Your task to perform on an android device: Find coffee shops on Maps Image 0: 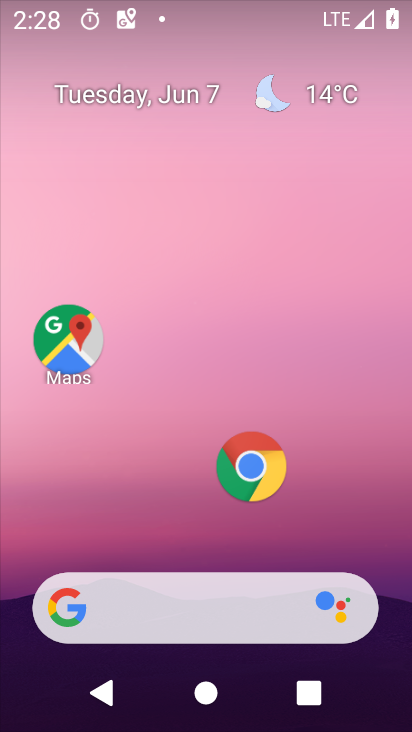
Step 0: click (65, 350)
Your task to perform on an android device: Find coffee shops on Maps Image 1: 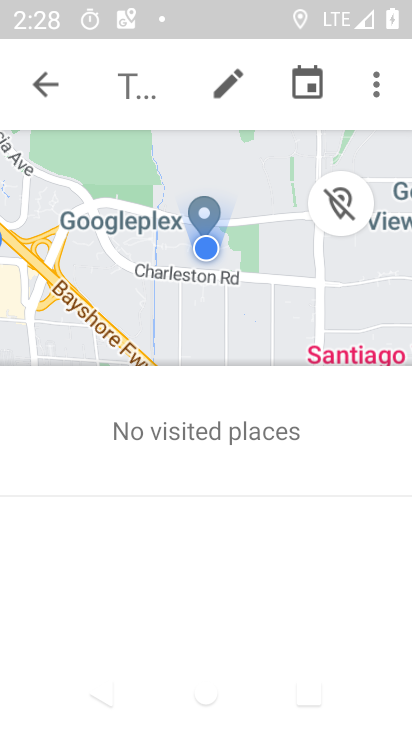
Step 1: click (32, 89)
Your task to perform on an android device: Find coffee shops on Maps Image 2: 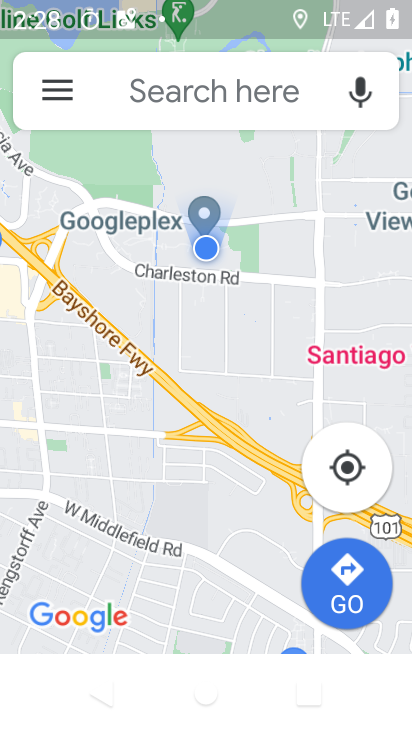
Step 2: click (238, 100)
Your task to perform on an android device: Find coffee shops on Maps Image 3: 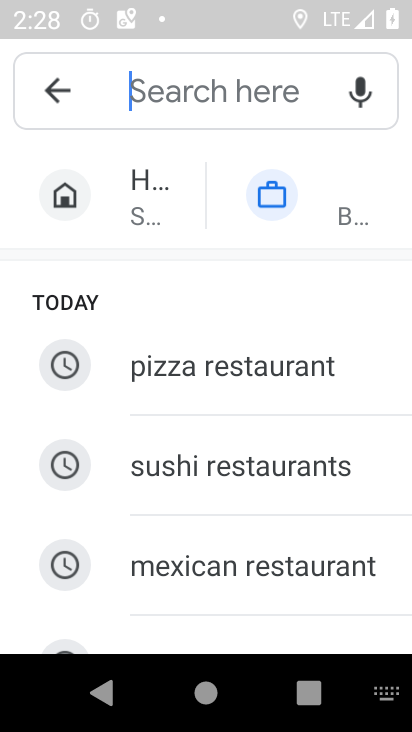
Step 3: type "coffee shops"
Your task to perform on an android device: Find coffee shops on Maps Image 4: 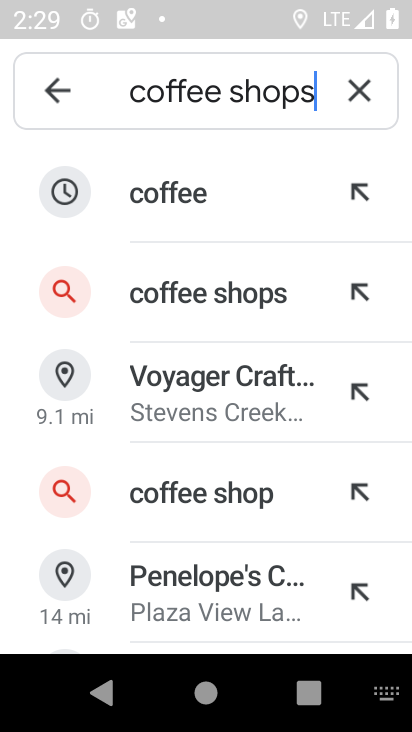
Step 4: click (282, 301)
Your task to perform on an android device: Find coffee shops on Maps Image 5: 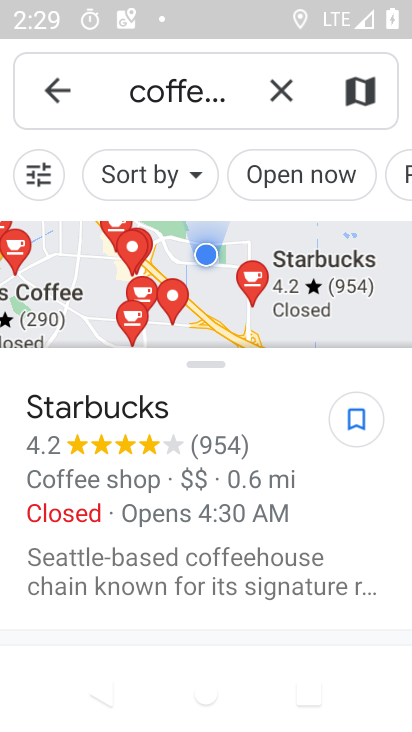
Step 5: task complete